Your task to perform on an android device: open a bookmark in the chrome app Image 0: 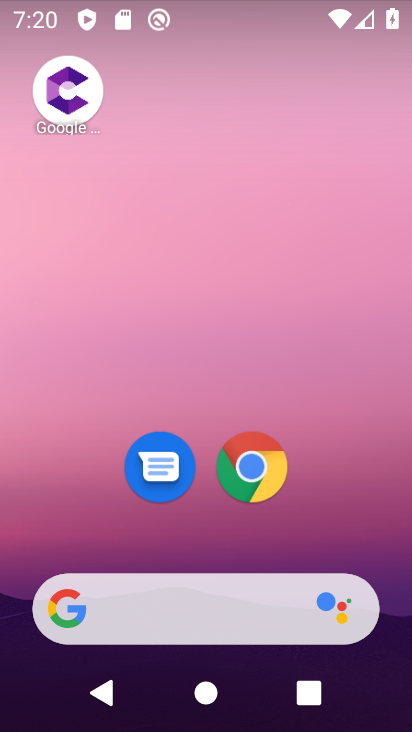
Step 0: click (241, 460)
Your task to perform on an android device: open a bookmark in the chrome app Image 1: 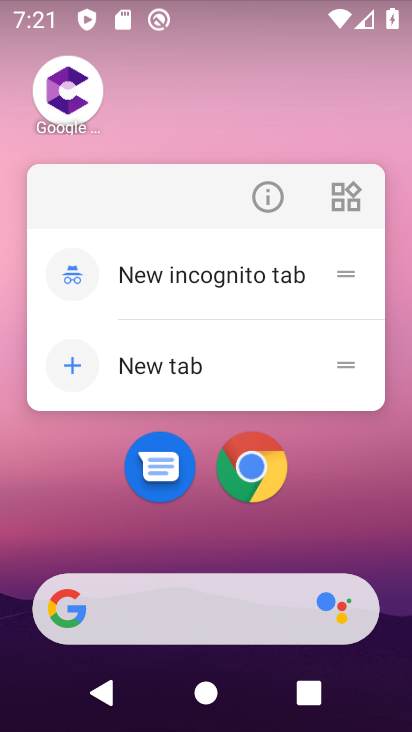
Step 1: click (241, 460)
Your task to perform on an android device: open a bookmark in the chrome app Image 2: 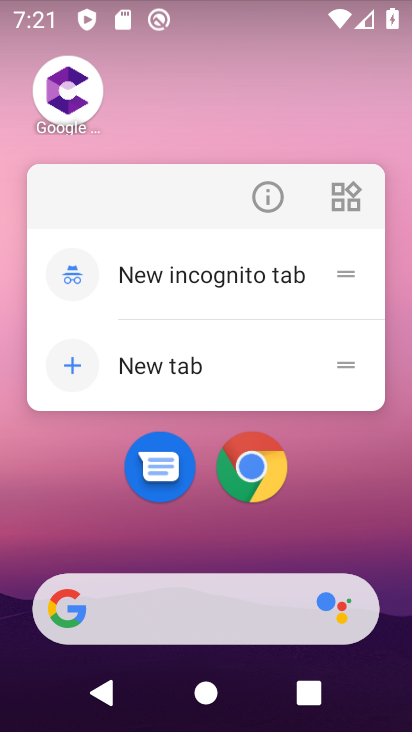
Step 2: click (241, 460)
Your task to perform on an android device: open a bookmark in the chrome app Image 3: 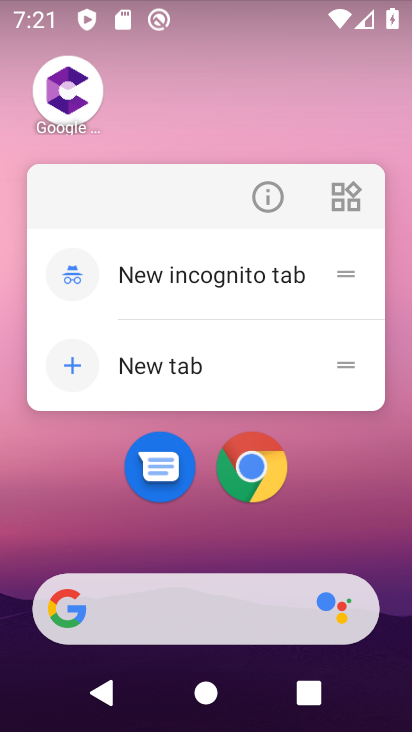
Step 3: click (241, 460)
Your task to perform on an android device: open a bookmark in the chrome app Image 4: 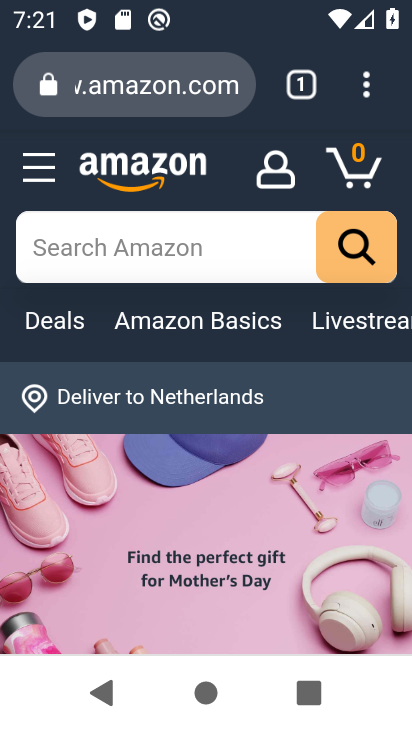
Step 4: click (368, 78)
Your task to perform on an android device: open a bookmark in the chrome app Image 5: 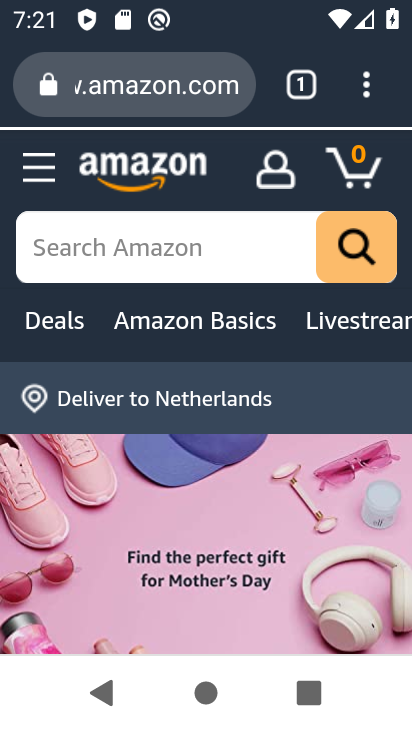
Step 5: drag from (366, 181) to (361, 231)
Your task to perform on an android device: open a bookmark in the chrome app Image 6: 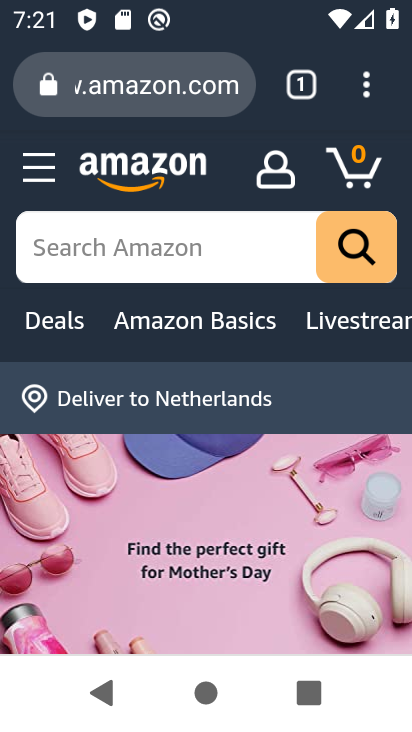
Step 6: drag from (366, 75) to (363, 143)
Your task to perform on an android device: open a bookmark in the chrome app Image 7: 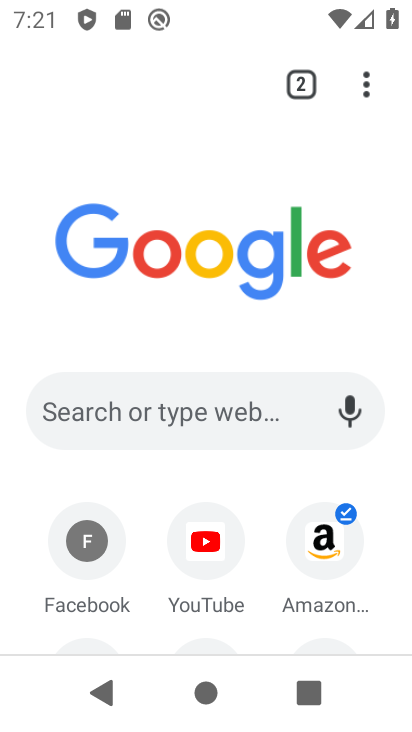
Step 7: drag from (365, 82) to (367, 231)
Your task to perform on an android device: open a bookmark in the chrome app Image 8: 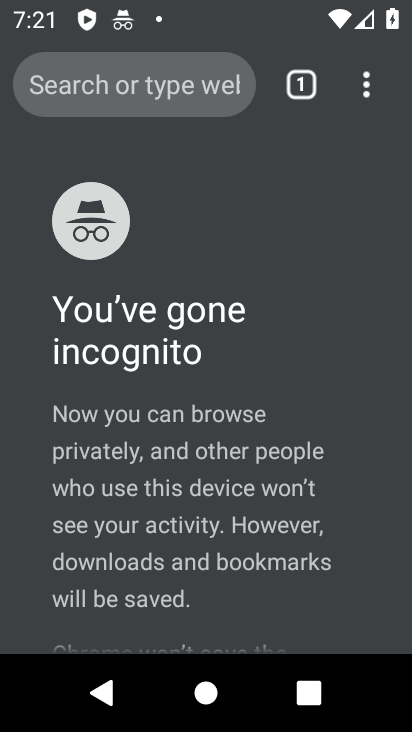
Step 8: press back button
Your task to perform on an android device: open a bookmark in the chrome app Image 9: 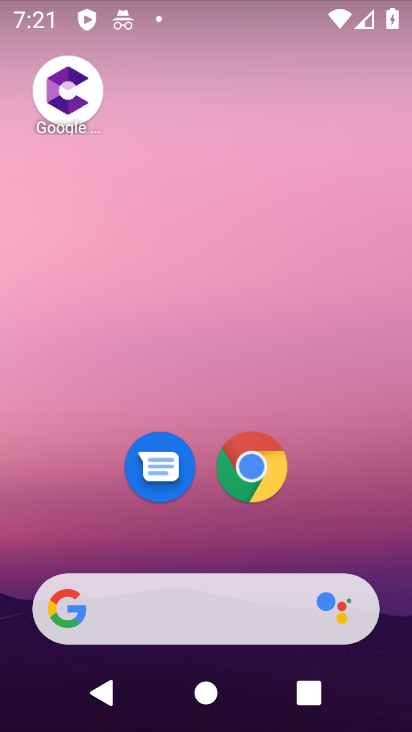
Step 9: click (244, 450)
Your task to perform on an android device: open a bookmark in the chrome app Image 10: 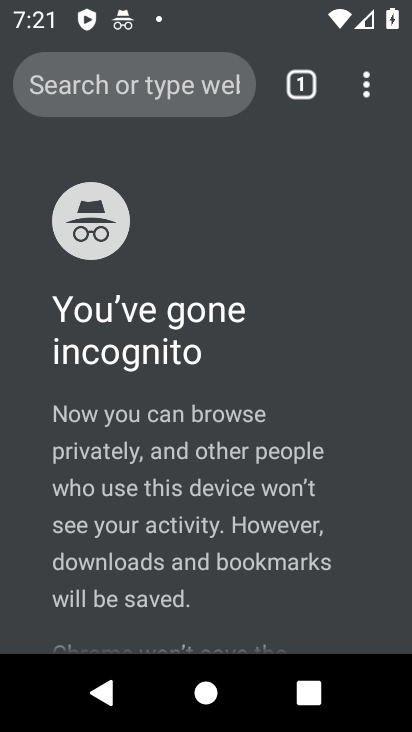
Step 10: click (366, 85)
Your task to perform on an android device: open a bookmark in the chrome app Image 11: 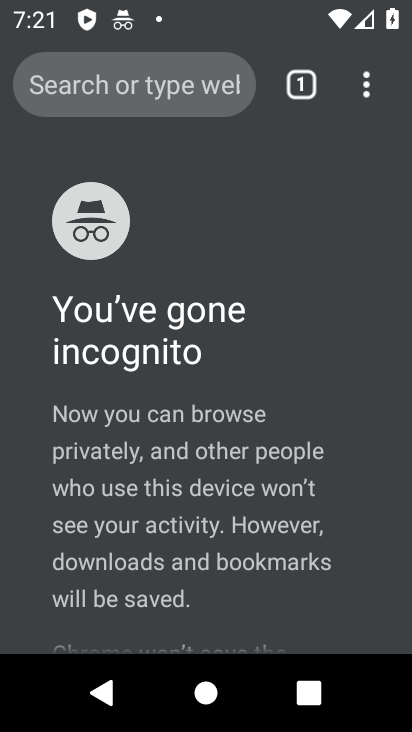
Step 11: click (364, 74)
Your task to perform on an android device: open a bookmark in the chrome app Image 12: 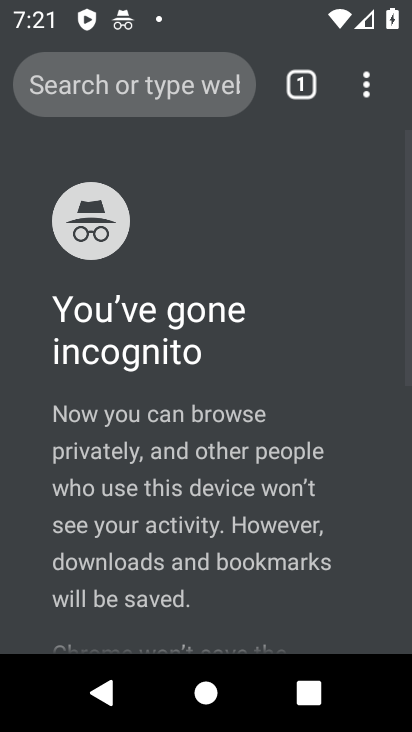
Step 12: click (367, 83)
Your task to perform on an android device: open a bookmark in the chrome app Image 13: 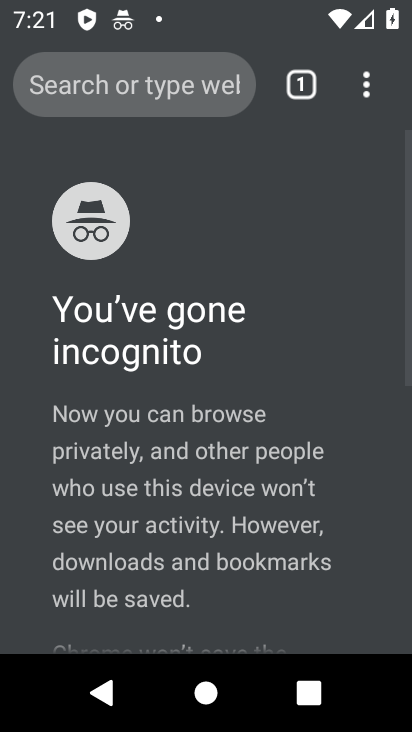
Step 13: click (365, 85)
Your task to perform on an android device: open a bookmark in the chrome app Image 14: 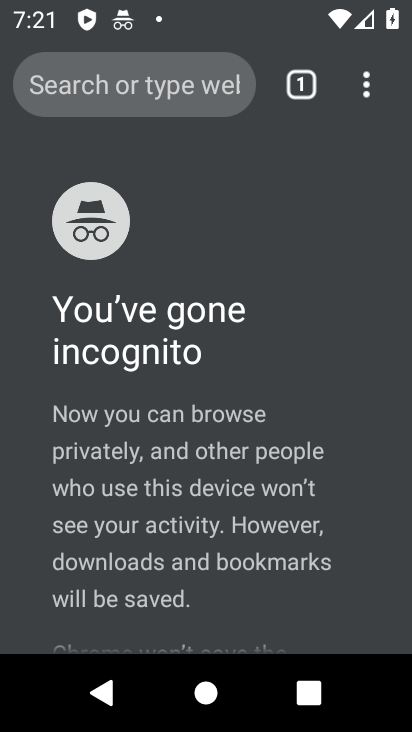
Step 14: click (355, 70)
Your task to perform on an android device: open a bookmark in the chrome app Image 15: 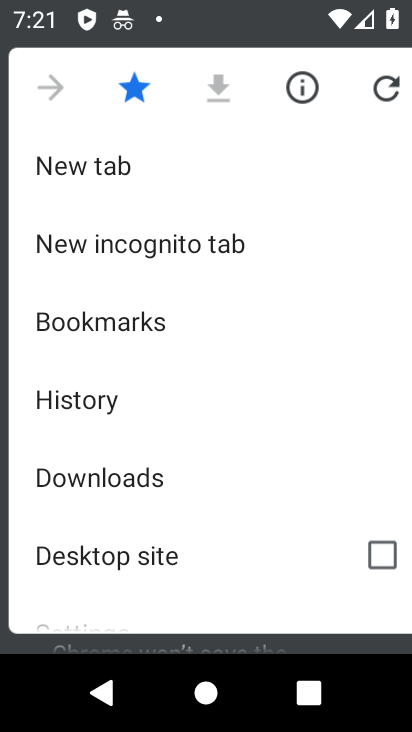
Step 15: click (109, 316)
Your task to perform on an android device: open a bookmark in the chrome app Image 16: 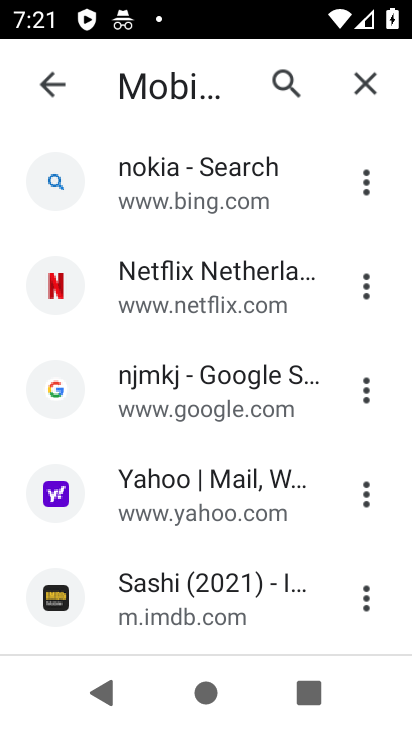
Step 16: click (147, 485)
Your task to perform on an android device: open a bookmark in the chrome app Image 17: 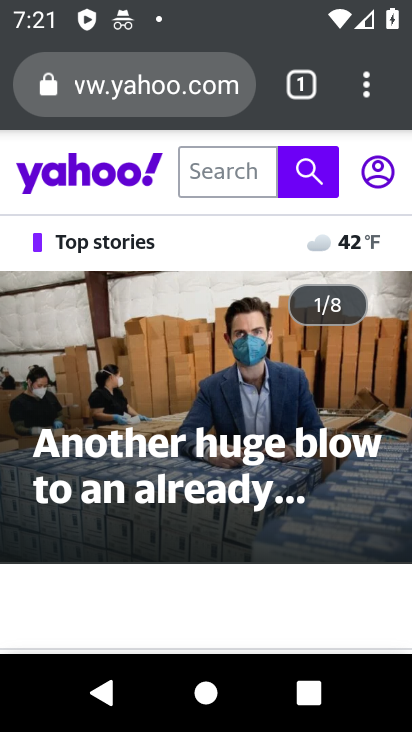
Step 17: task complete